Your task to perform on an android device: open app "AliExpress" Image 0: 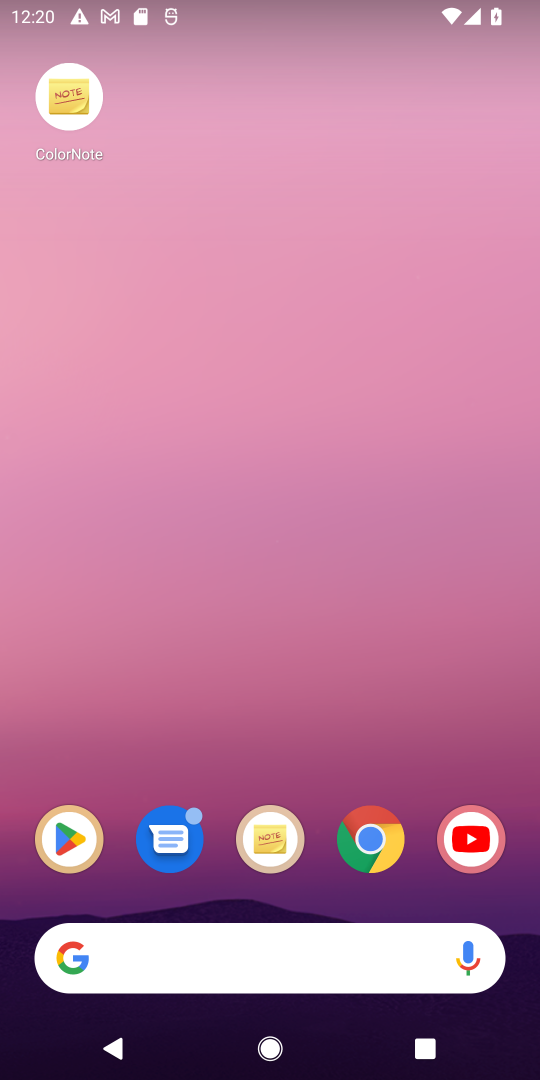
Step 0: click (261, 722)
Your task to perform on an android device: open app "AliExpress" Image 1: 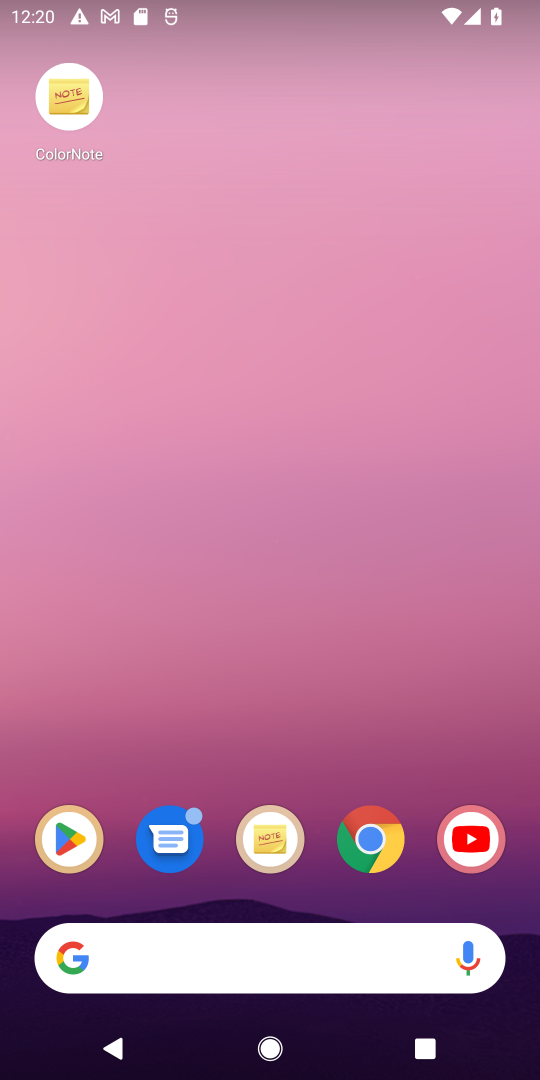
Step 1: click (61, 830)
Your task to perform on an android device: open app "AliExpress" Image 2: 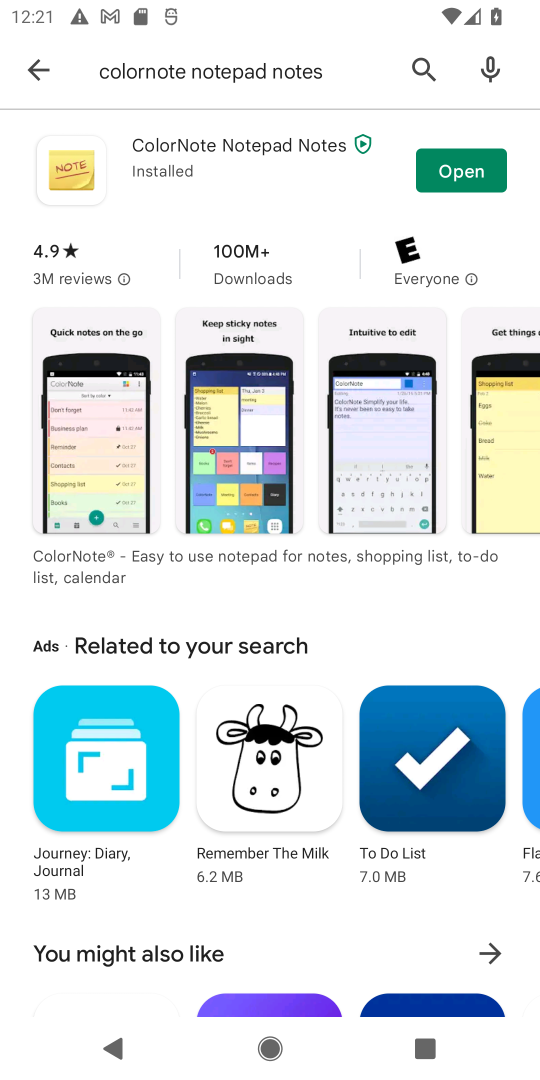
Step 2: click (420, 71)
Your task to perform on an android device: open app "AliExpress" Image 3: 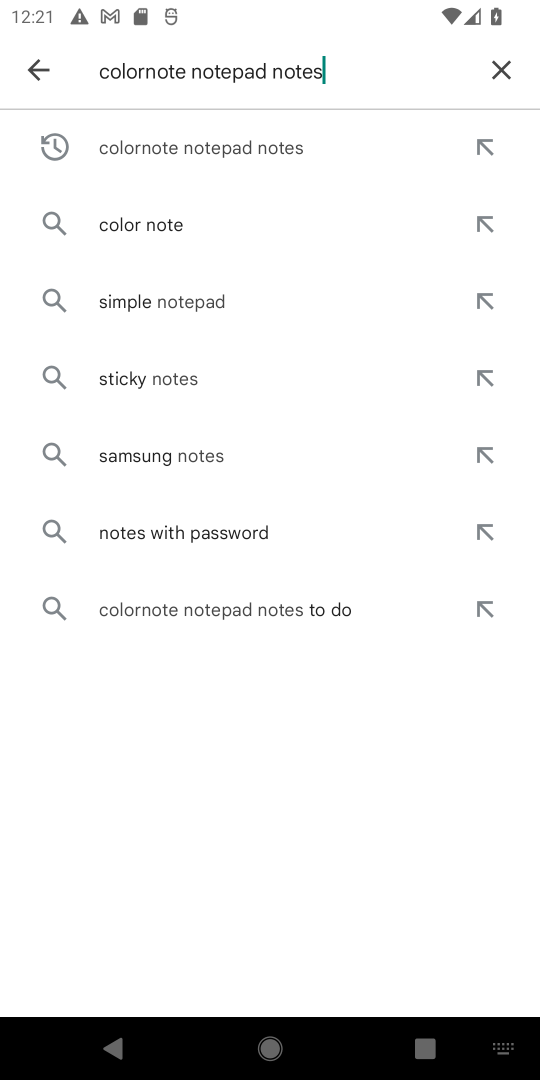
Step 3: click (515, 68)
Your task to perform on an android device: open app "AliExpress" Image 4: 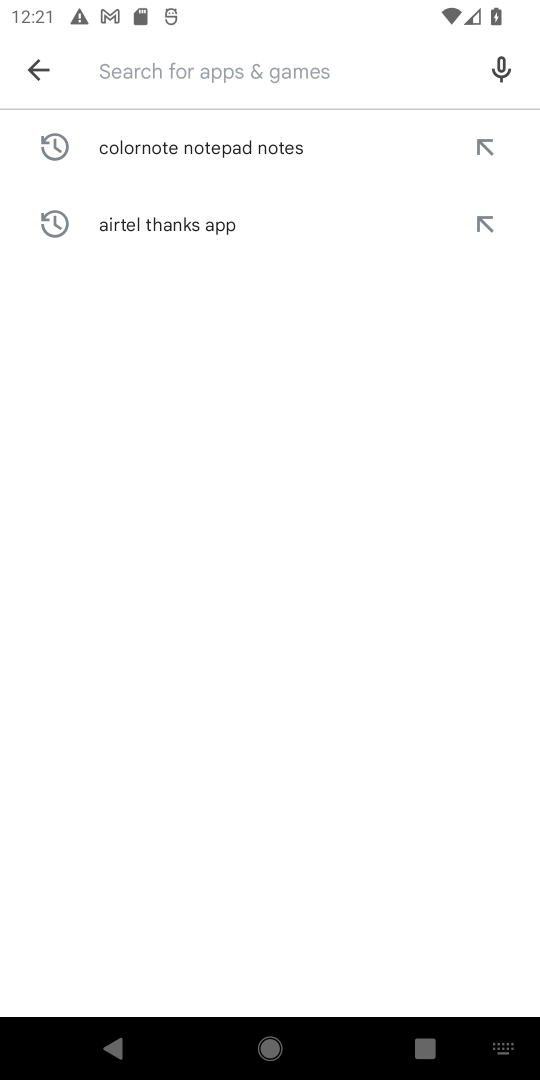
Step 4: type "aliexpress"
Your task to perform on an android device: open app "AliExpress" Image 5: 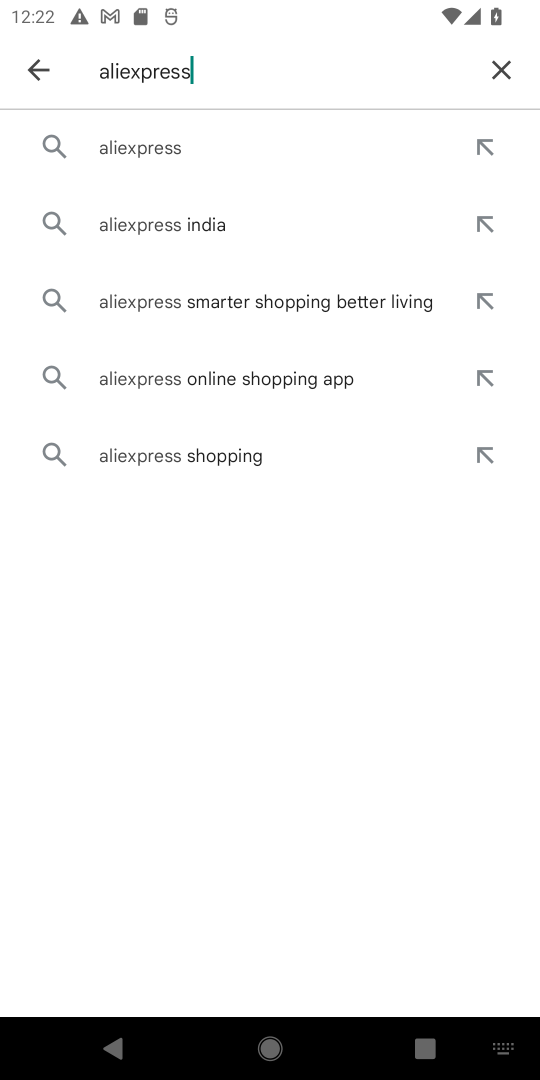
Step 5: click (183, 137)
Your task to perform on an android device: open app "AliExpress" Image 6: 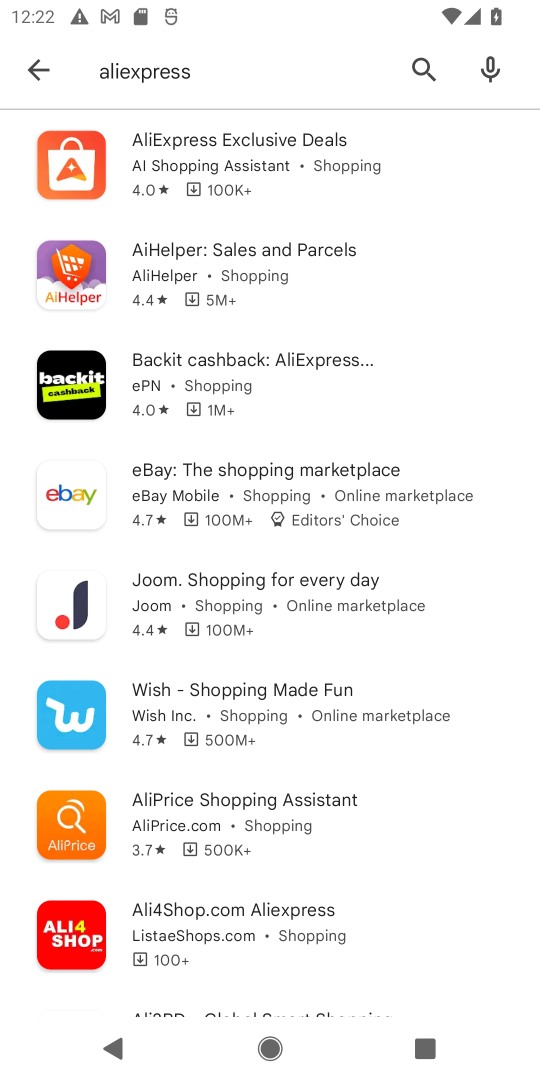
Step 6: click (266, 156)
Your task to perform on an android device: open app "AliExpress" Image 7: 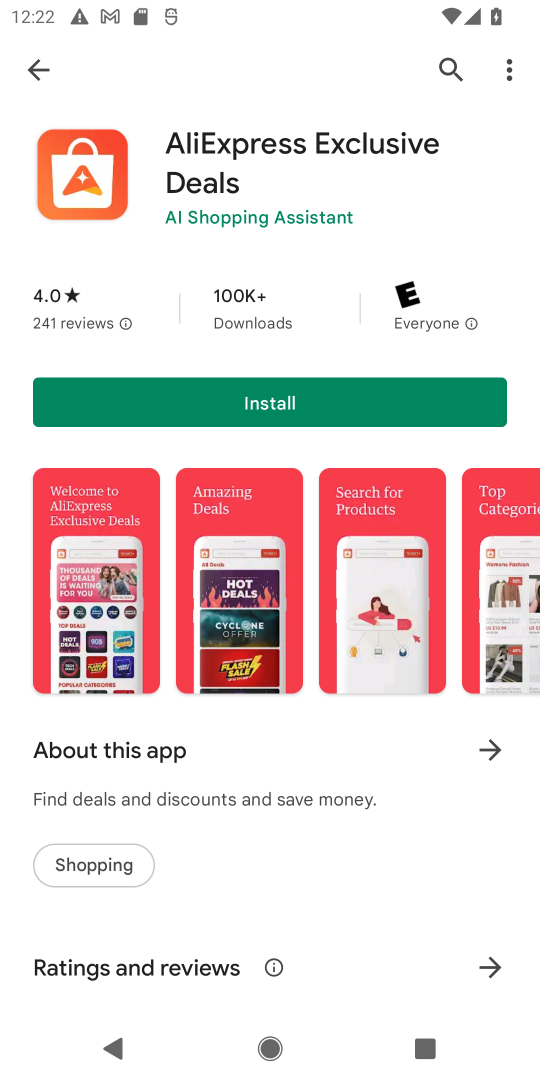
Step 7: task complete